Your task to perform on an android device: check out phone information Image 0: 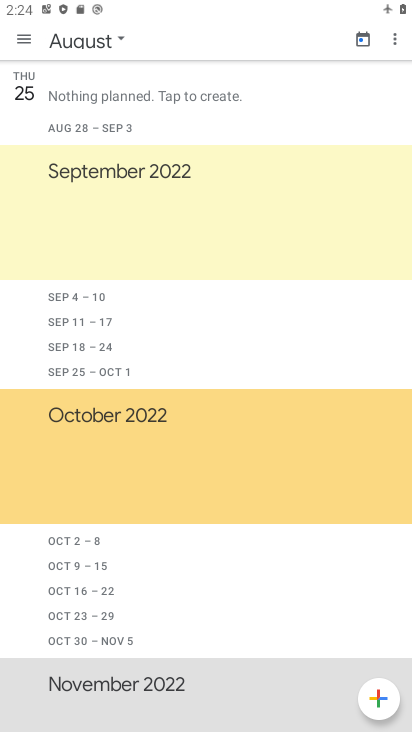
Step 0: press home button
Your task to perform on an android device: check out phone information Image 1: 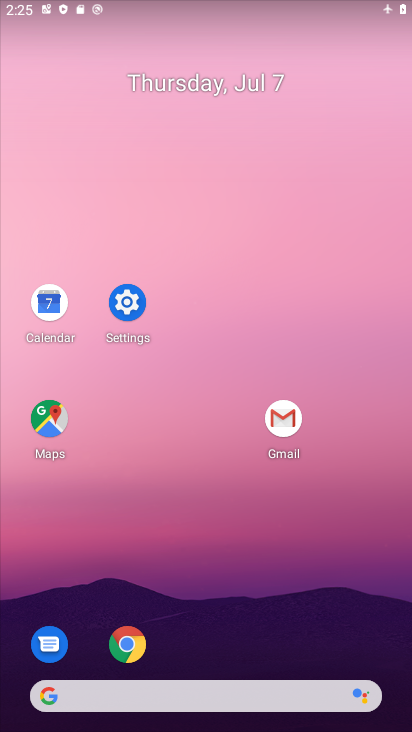
Step 1: click (137, 295)
Your task to perform on an android device: check out phone information Image 2: 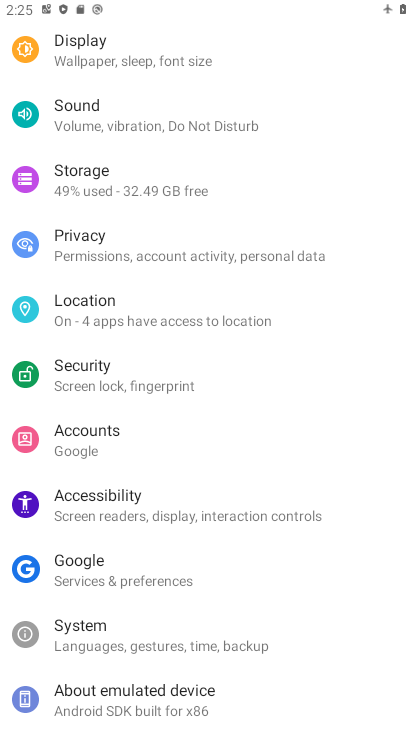
Step 2: click (113, 704)
Your task to perform on an android device: check out phone information Image 3: 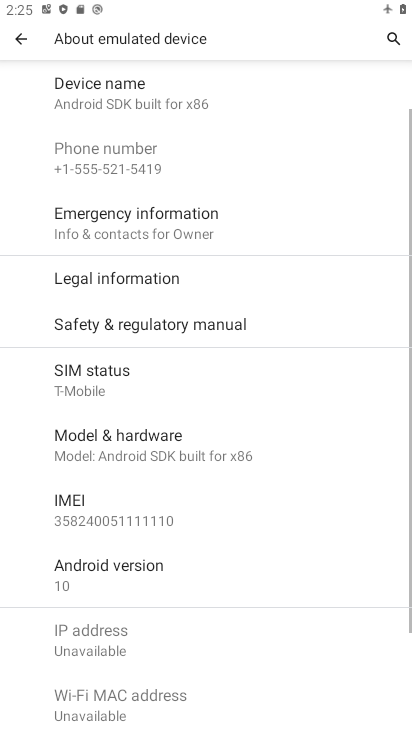
Step 3: task complete